Your task to perform on an android device: Do I have any events today? Image 0: 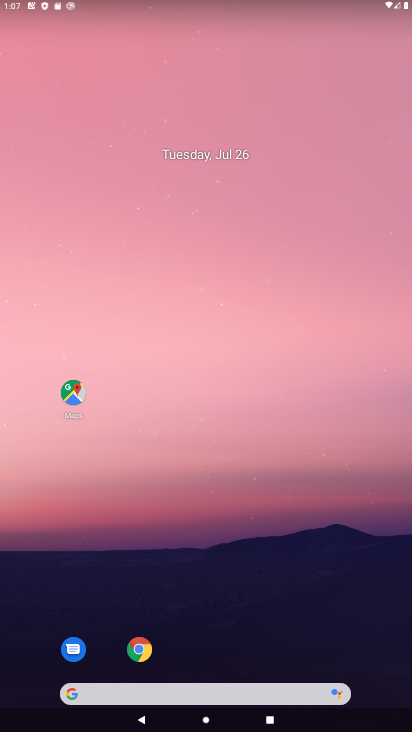
Step 0: drag from (341, 620) to (87, 11)
Your task to perform on an android device: Do I have any events today? Image 1: 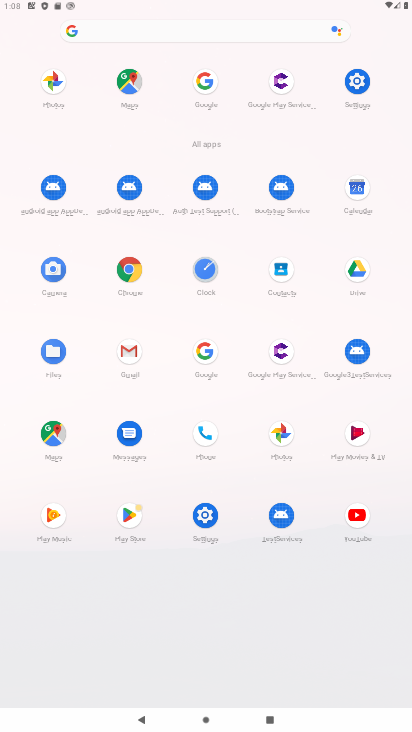
Step 1: click (353, 189)
Your task to perform on an android device: Do I have any events today? Image 2: 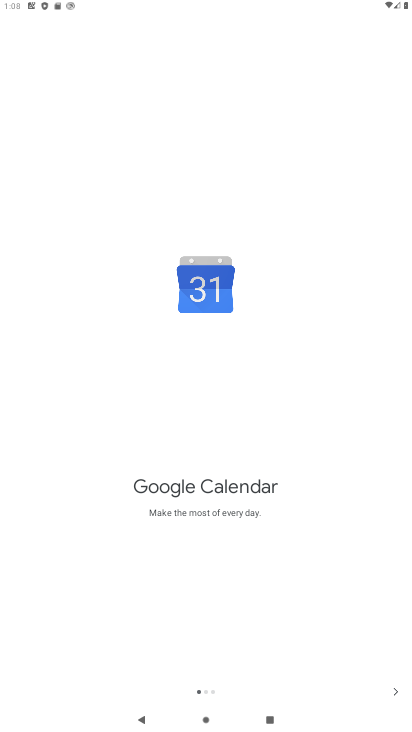
Step 2: click (397, 687)
Your task to perform on an android device: Do I have any events today? Image 3: 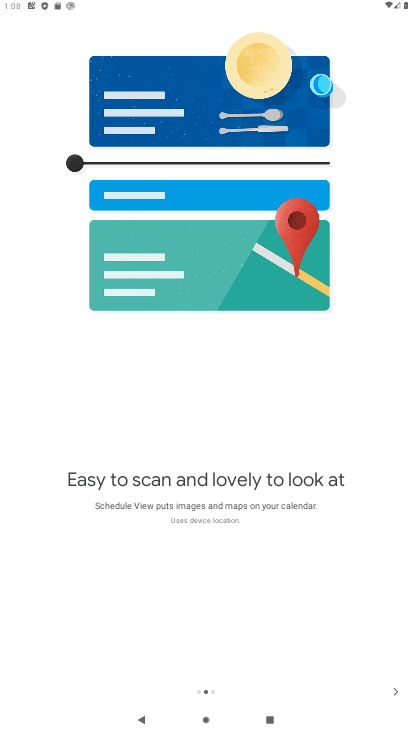
Step 3: click (396, 687)
Your task to perform on an android device: Do I have any events today? Image 4: 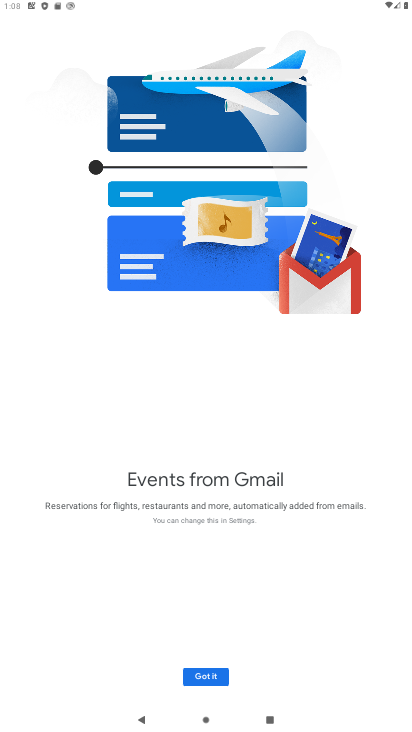
Step 4: click (204, 681)
Your task to perform on an android device: Do I have any events today? Image 5: 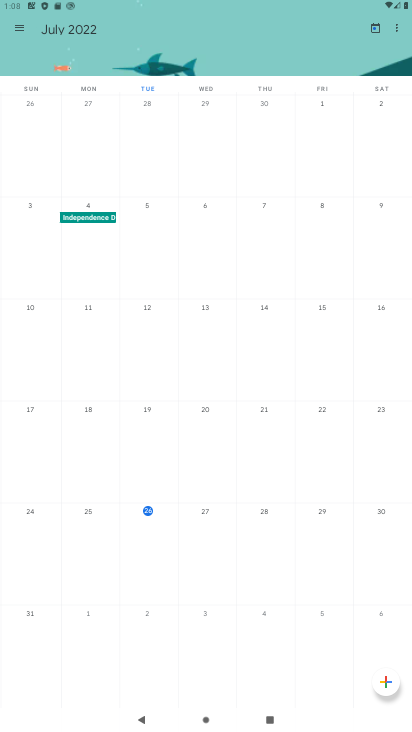
Step 5: task complete